Your task to perform on an android device: Open calendar and show me the fourth week of next month Image 0: 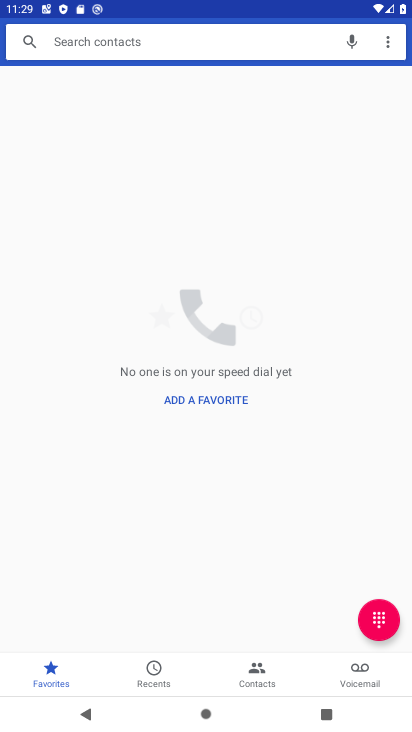
Step 0: press home button
Your task to perform on an android device: Open calendar and show me the fourth week of next month Image 1: 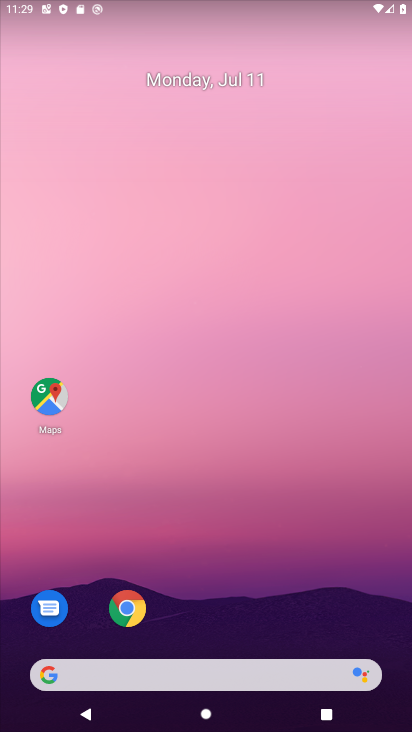
Step 1: click (205, 78)
Your task to perform on an android device: Open calendar and show me the fourth week of next month Image 2: 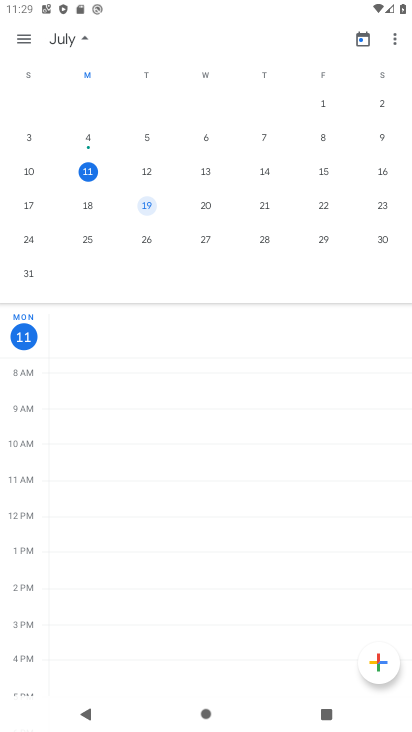
Step 2: click (60, 38)
Your task to perform on an android device: Open calendar and show me the fourth week of next month Image 3: 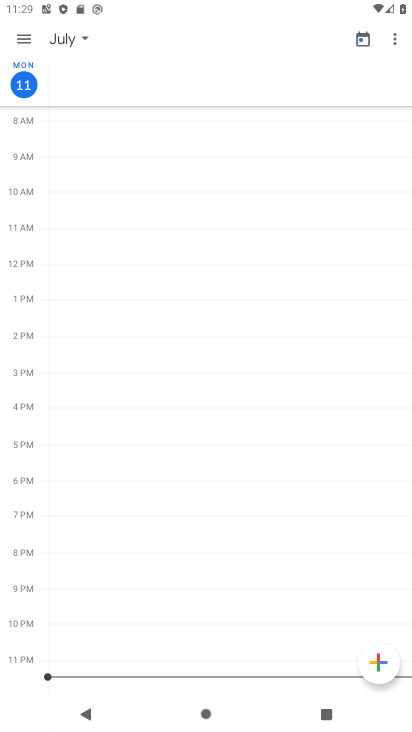
Step 3: click (60, 38)
Your task to perform on an android device: Open calendar and show me the fourth week of next month Image 4: 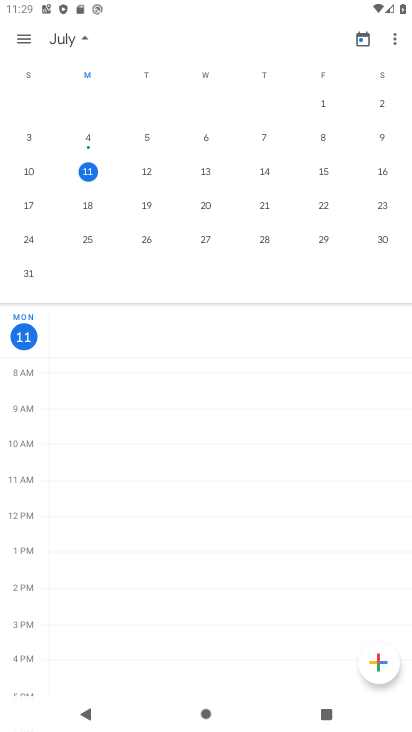
Step 4: drag from (399, 227) to (11, 255)
Your task to perform on an android device: Open calendar and show me the fourth week of next month Image 5: 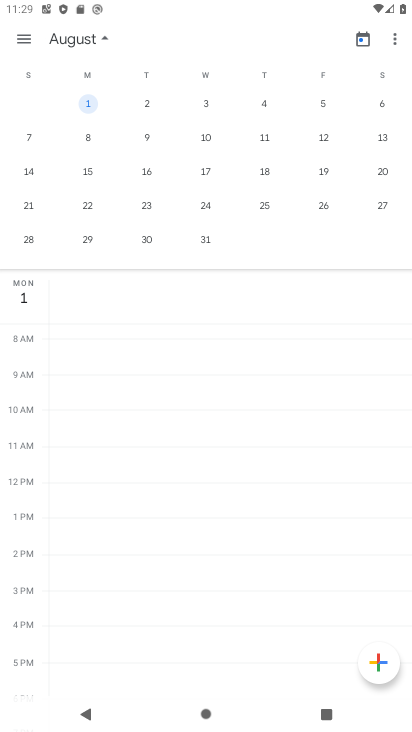
Step 5: click (321, 217)
Your task to perform on an android device: Open calendar and show me the fourth week of next month Image 6: 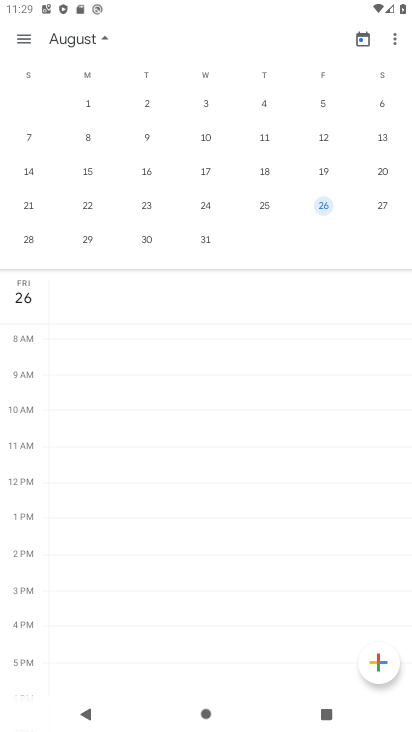
Step 6: task complete